Your task to perform on an android device: Go to ESPN.com Image 0: 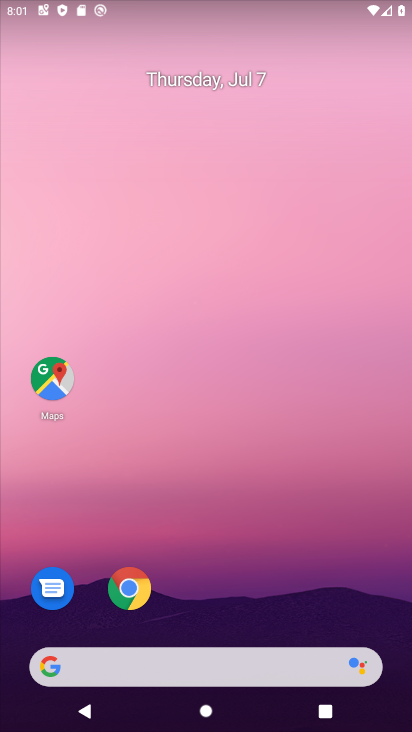
Step 0: click (140, 664)
Your task to perform on an android device: Go to ESPN.com Image 1: 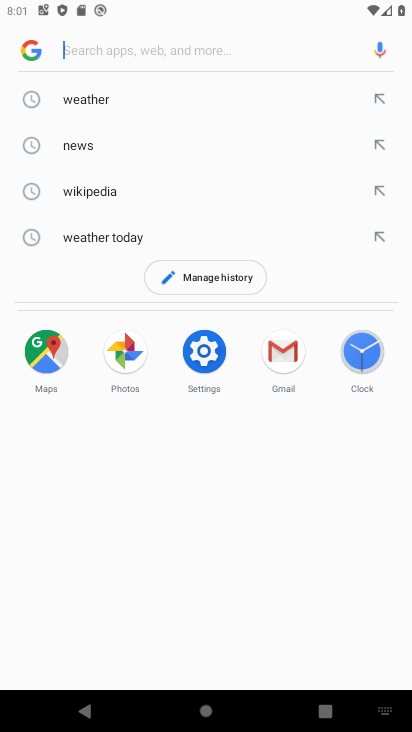
Step 1: type "ESPN.com"
Your task to perform on an android device: Go to ESPN.com Image 2: 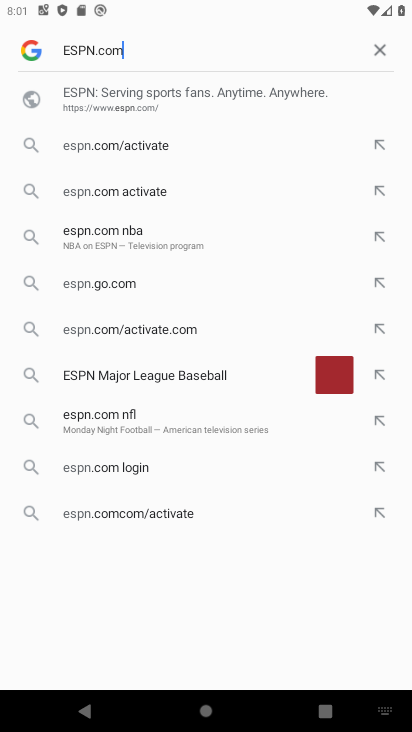
Step 2: type ""
Your task to perform on an android device: Go to ESPN.com Image 3: 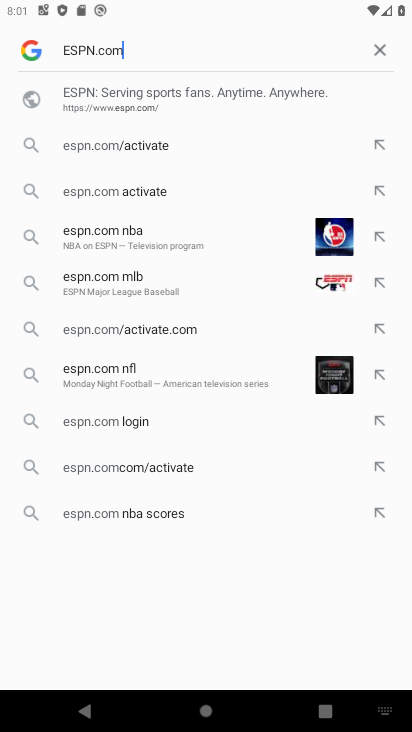
Step 3: type "   "
Your task to perform on an android device: Go to ESPN.com Image 4: 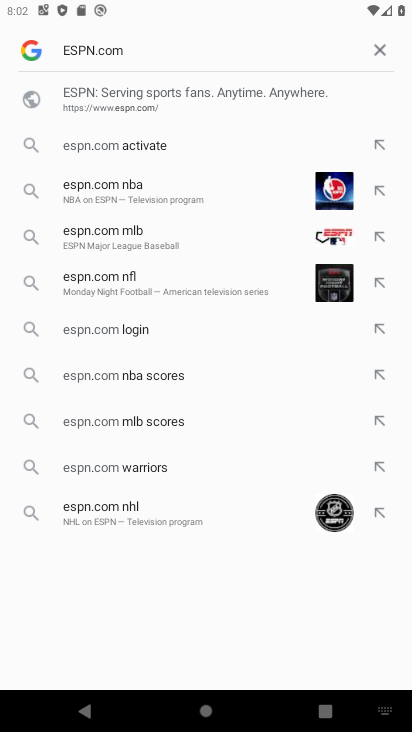
Step 4: type ""
Your task to perform on an android device: Go to ESPN.com Image 5: 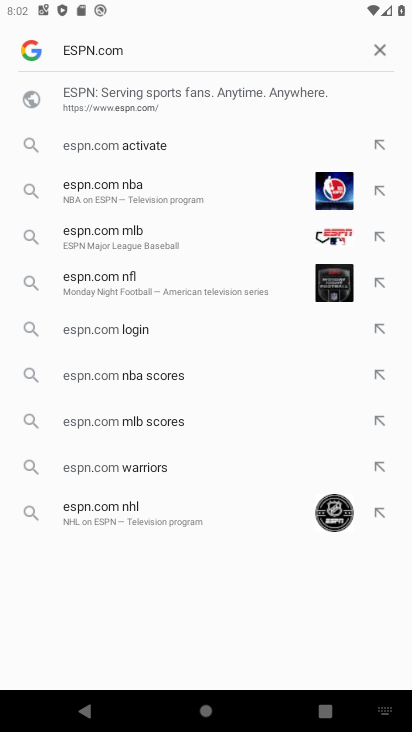
Step 5: click (210, 97)
Your task to perform on an android device: Go to ESPN.com Image 6: 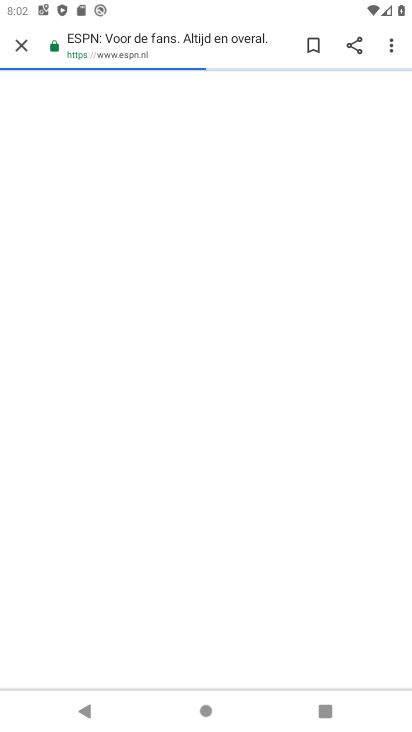
Step 6: task complete